Your task to perform on an android device: manage bookmarks in the chrome app Image 0: 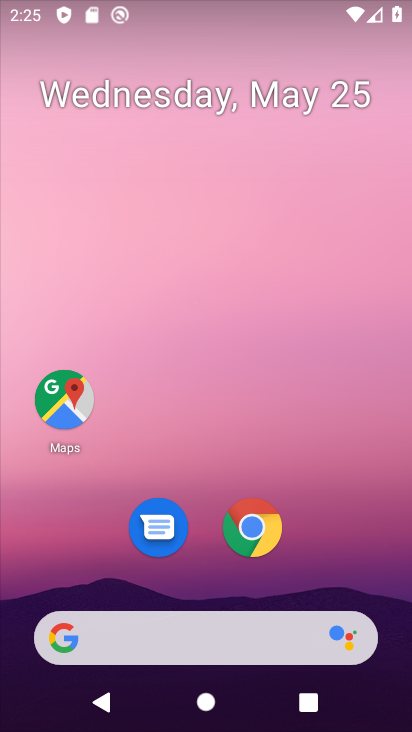
Step 0: click (228, 543)
Your task to perform on an android device: manage bookmarks in the chrome app Image 1: 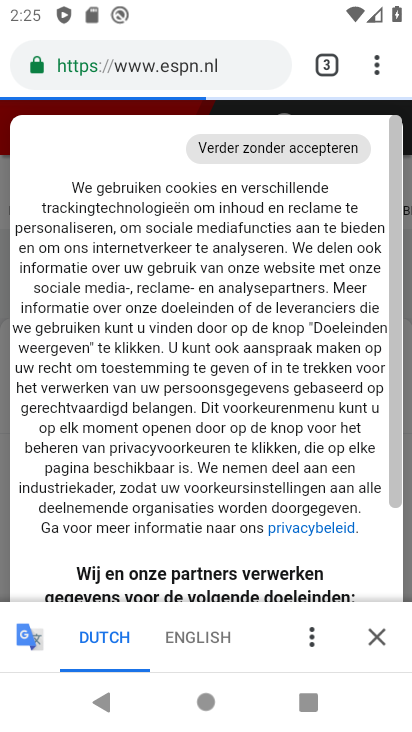
Step 1: task complete